Your task to perform on an android device: check android version Image 0: 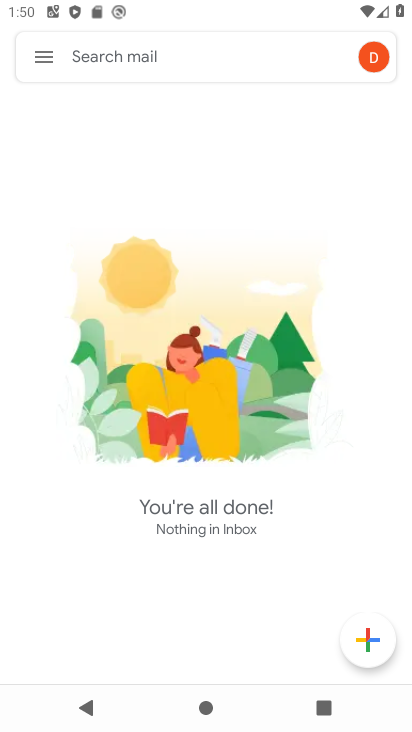
Step 0: press home button
Your task to perform on an android device: check android version Image 1: 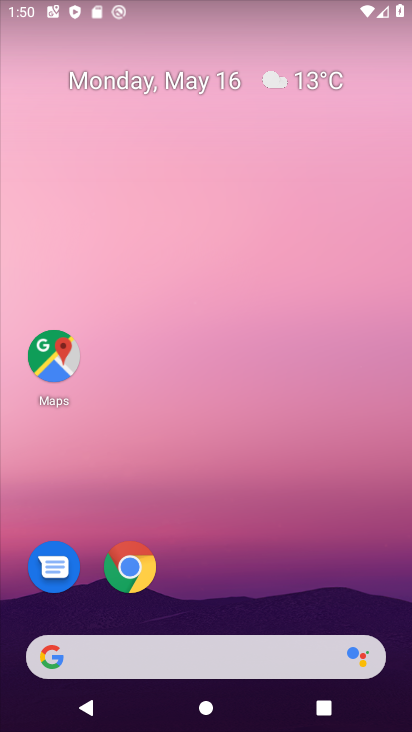
Step 1: drag from (281, 554) to (269, 92)
Your task to perform on an android device: check android version Image 2: 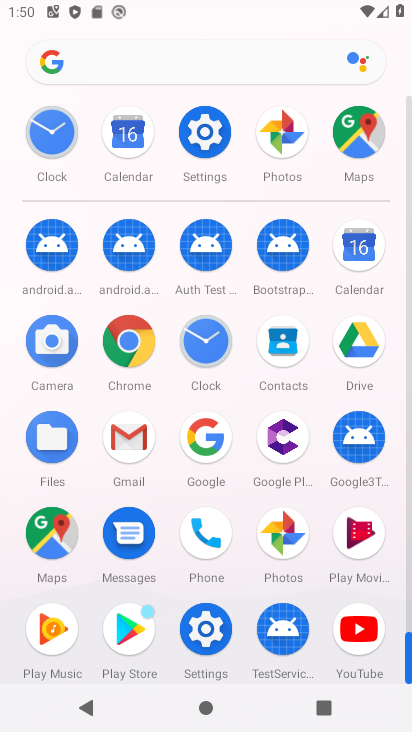
Step 2: click (204, 135)
Your task to perform on an android device: check android version Image 3: 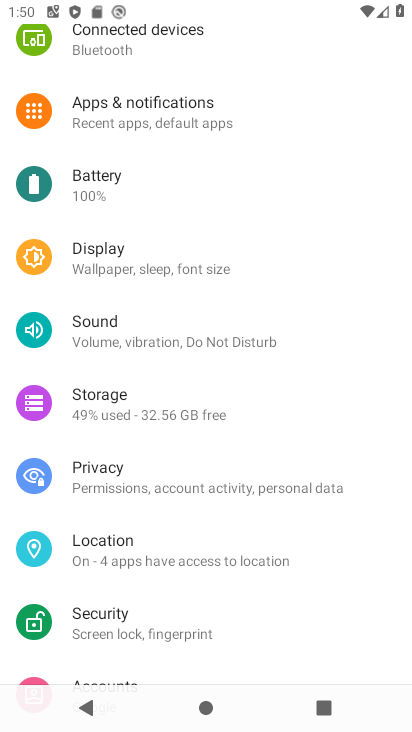
Step 3: drag from (244, 612) to (269, 258)
Your task to perform on an android device: check android version Image 4: 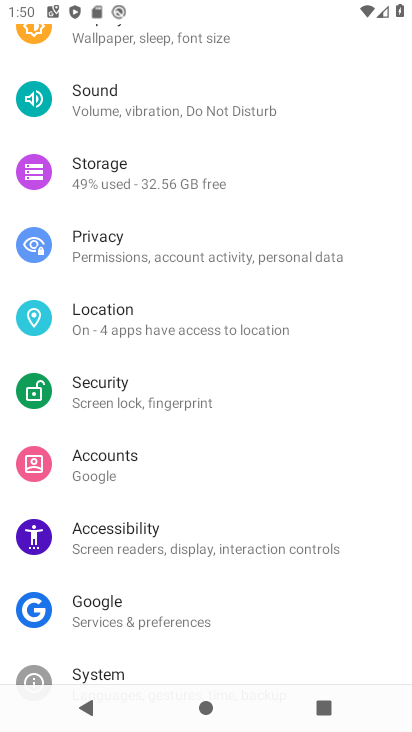
Step 4: drag from (247, 577) to (275, 157)
Your task to perform on an android device: check android version Image 5: 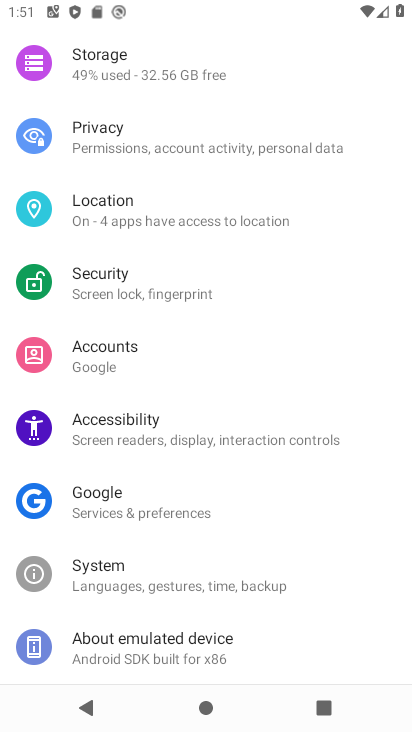
Step 5: click (122, 638)
Your task to perform on an android device: check android version Image 6: 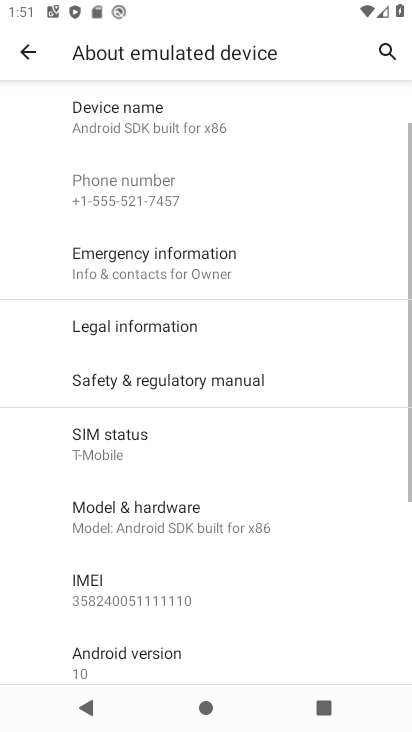
Step 6: task complete